Your task to perform on an android device: Go to CNN.com Image 0: 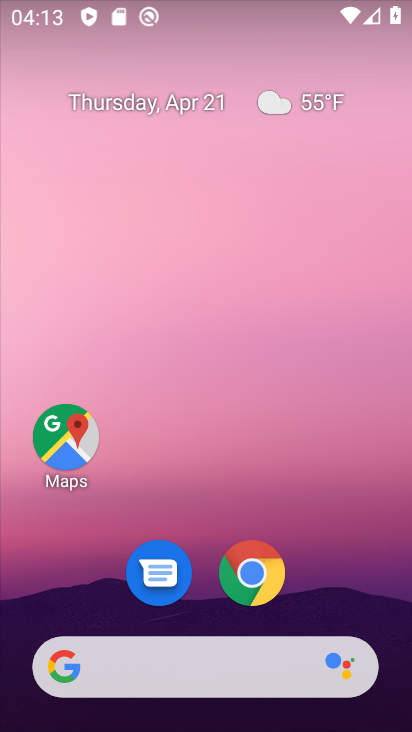
Step 0: drag from (323, 633) to (329, 125)
Your task to perform on an android device: Go to CNN.com Image 1: 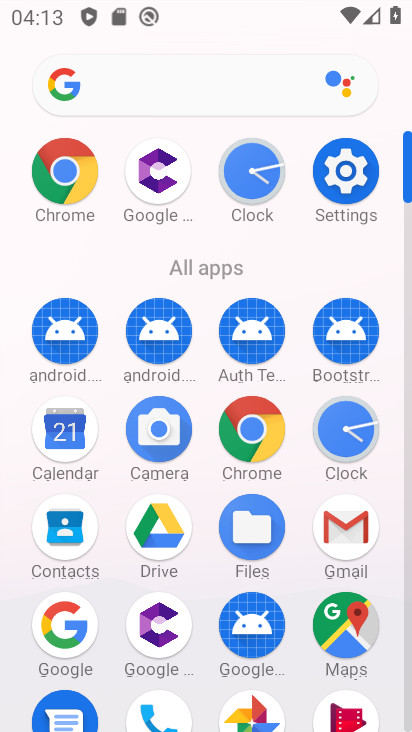
Step 1: click (273, 439)
Your task to perform on an android device: Go to CNN.com Image 2: 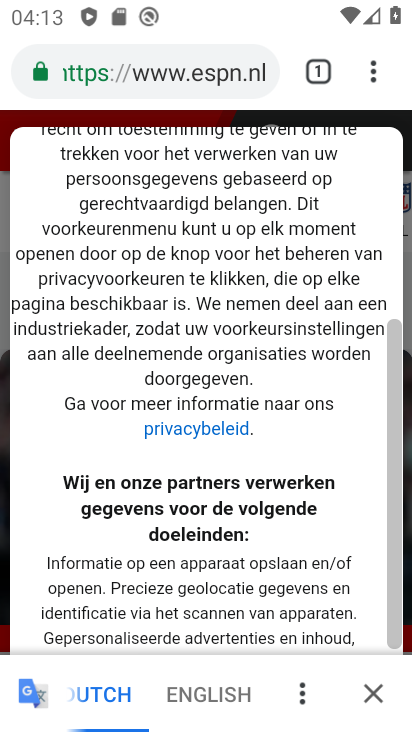
Step 2: click (189, 81)
Your task to perform on an android device: Go to CNN.com Image 3: 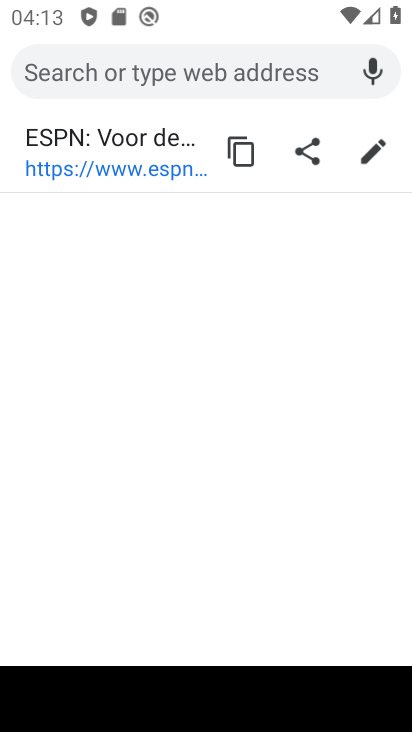
Step 3: type "cnn.com"
Your task to perform on an android device: Go to CNN.com Image 4: 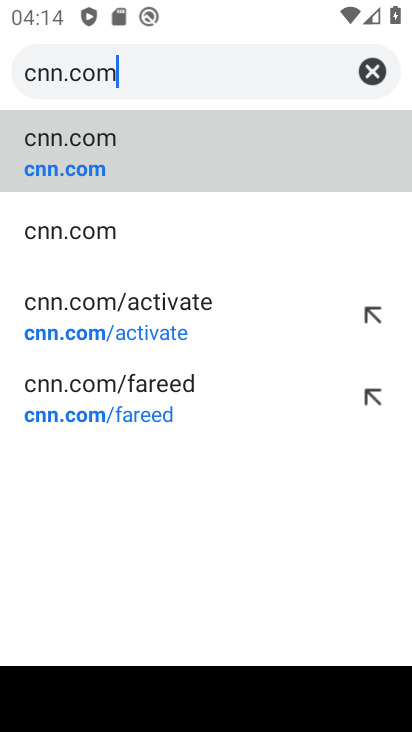
Step 4: click (168, 179)
Your task to perform on an android device: Go to CNN.com Image 5: 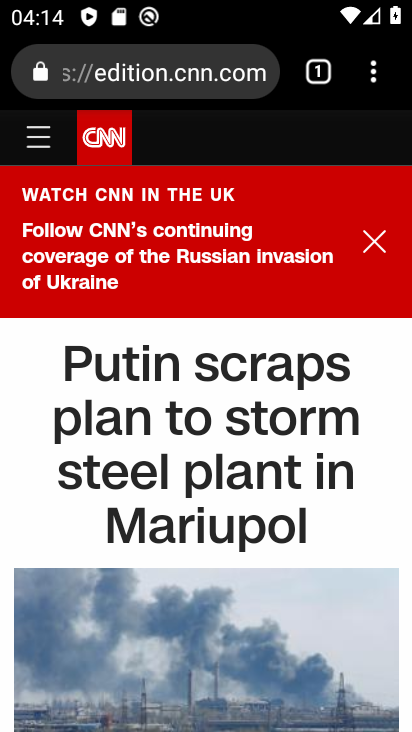
Step 5: task complete